Your task to perform on an android device: change text size in settings app Image 0: 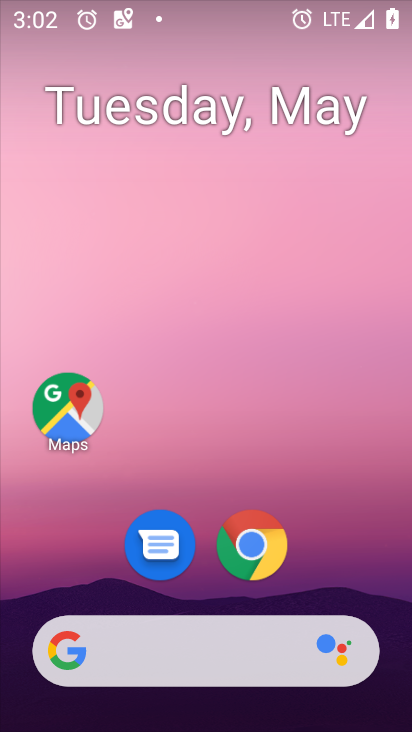
Step 0: drag from (331, 459) to (249, 0)
Your task to perform on an android device: change text size in settings app Image 1: 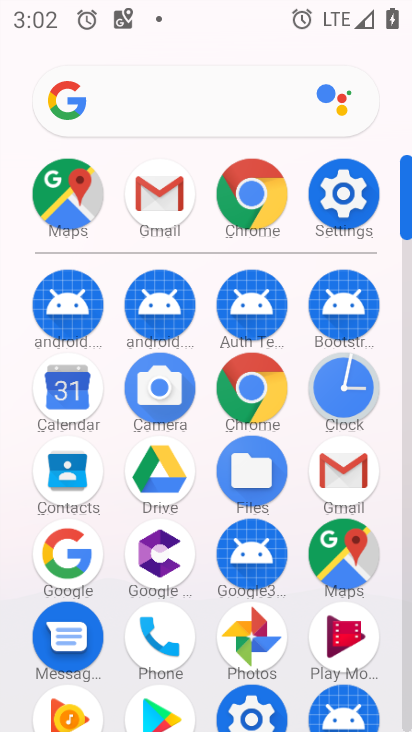
Step 1: drag from (10, 525) to (15, 189)
Your task to perform on an android device: change text size in settings app Image 2: 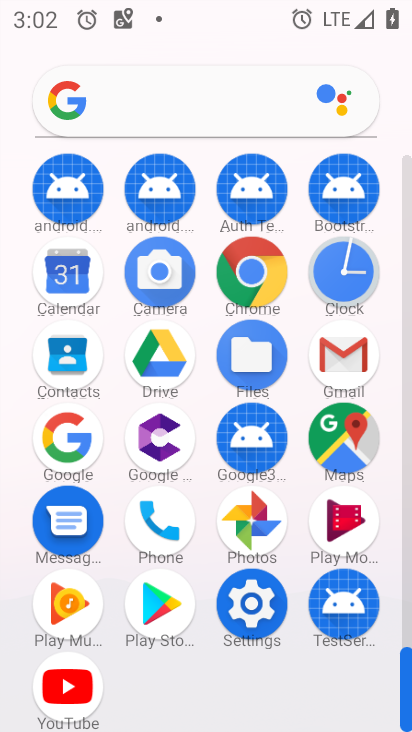
Step 2: click (252, 598)
Your task to perform on an android device: change text size in settings app Image 3: 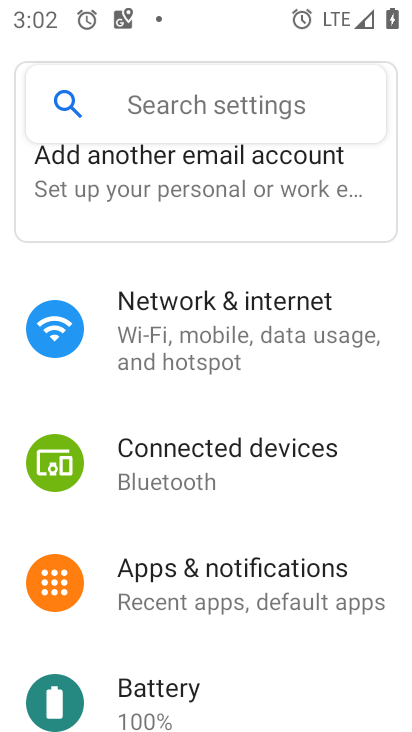
Step 3: drag from (288, 603) to (283, 262)
Your task to perform on an android device: change text size in settings app Image 4: 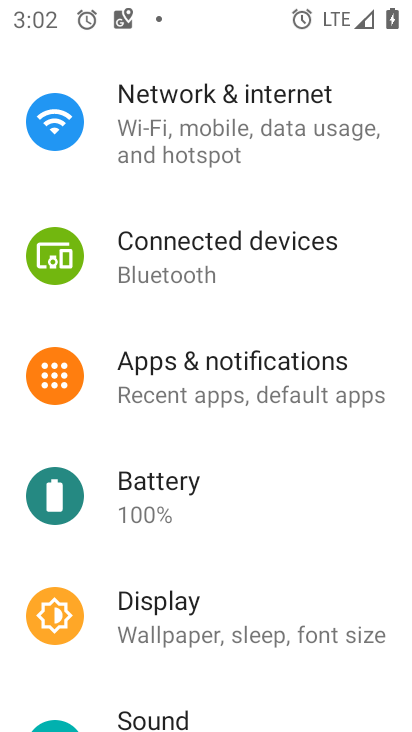
Step 4: click (247, 608)
Your task to perform on an android device: change text size in settings app Image 5: 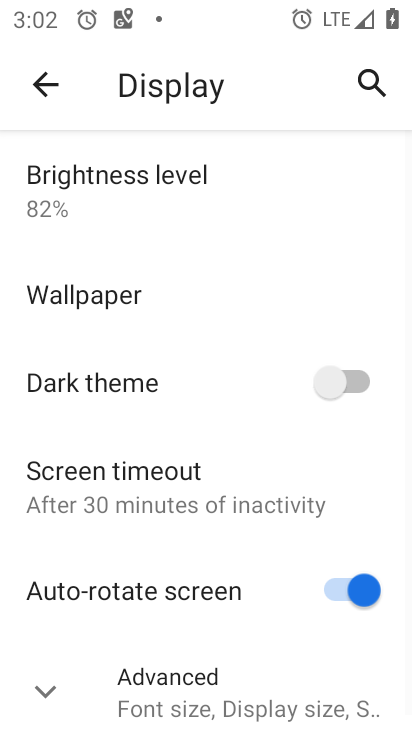
Step 5: drag from (267, 611) to (258, 239)
Your task to perform on an android device: change text size in settings app Image 6: 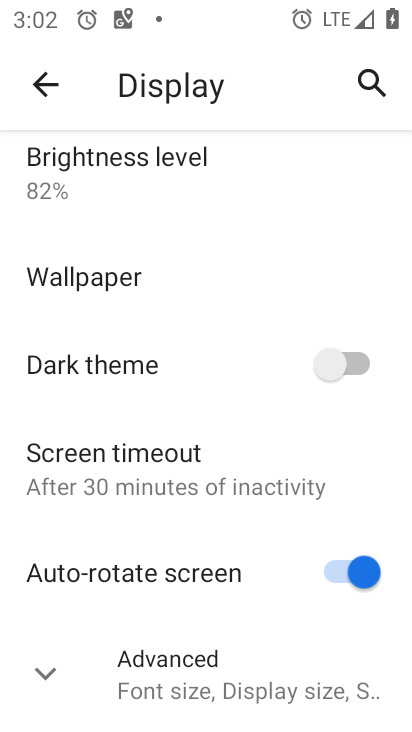
Step 6: click (125, 659)
Your task to perform on an android device: change text size in settings app Image 7: 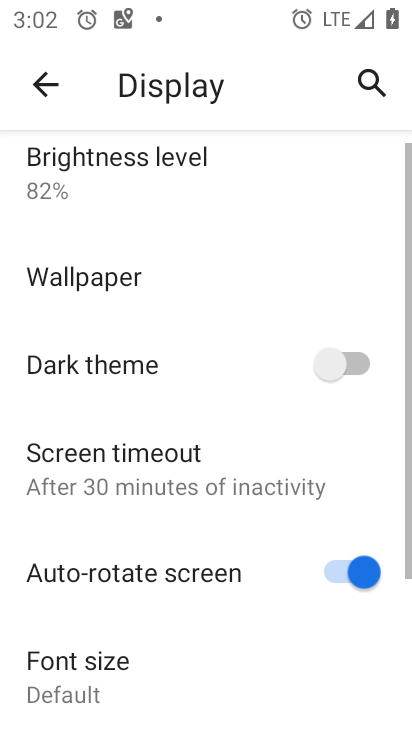
Step 7: drag from (202, 592) to (243, 196)
Your task to perform on an android device: change text size in settings app Image 8: 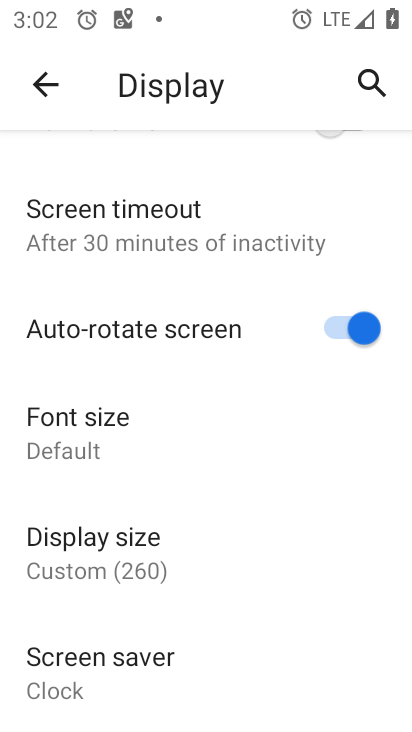
Step 8: click (111, 413)
Your task to perform on an android device: change text size in settings app Image 9: 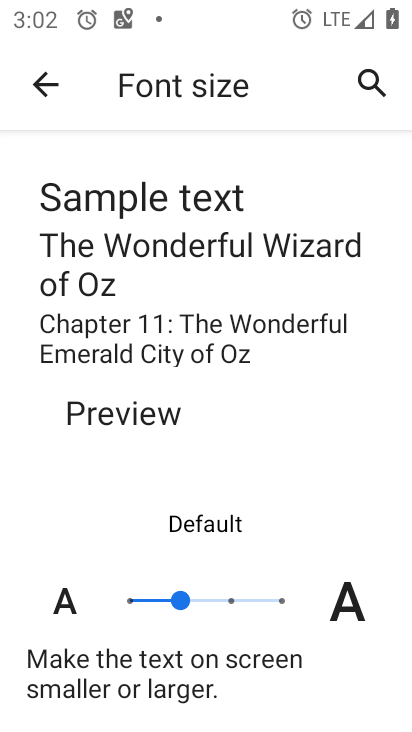
Step 9: click (232, 600)
Your task to perform on an android device: change text size in settings app Image 10: 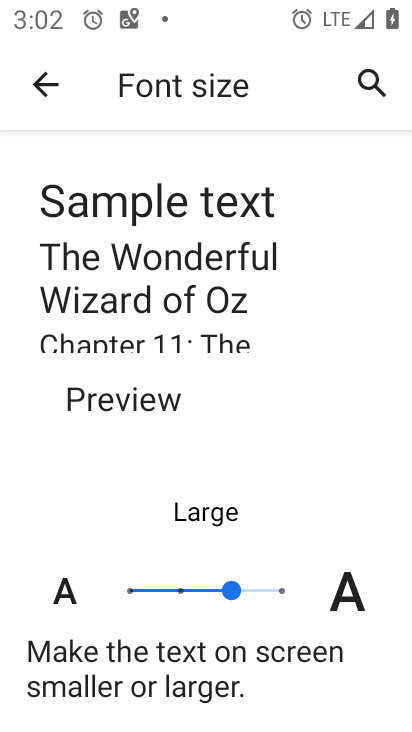
Step 10: task complete